Your task to perform on an android device: Go to Yahoo.com Image 0: 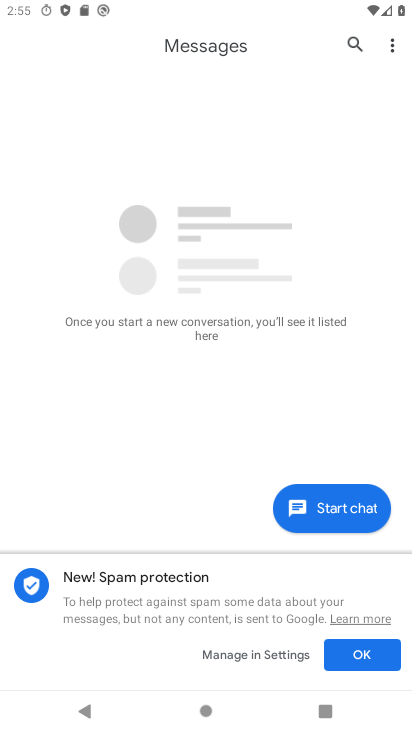
Step 0: click (373, 666)
Your task to perform on an android device: Go to Yahoo.com Image 1: 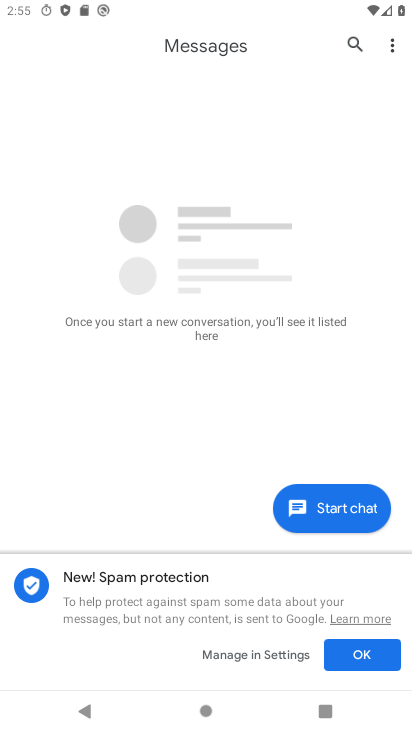
Step 1: click (373, 666)
Your task to perform on an android device: Go to Yahoo.com Image 2: 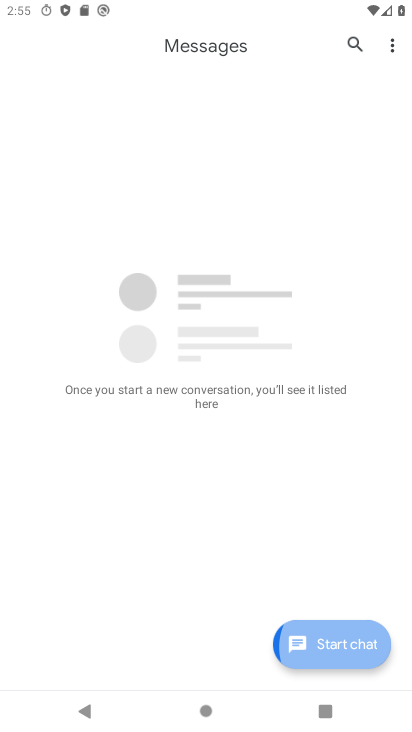
Step 2: click (370, 668)
Your task to perform on an android device: Go to Yahoo.com Image 3: 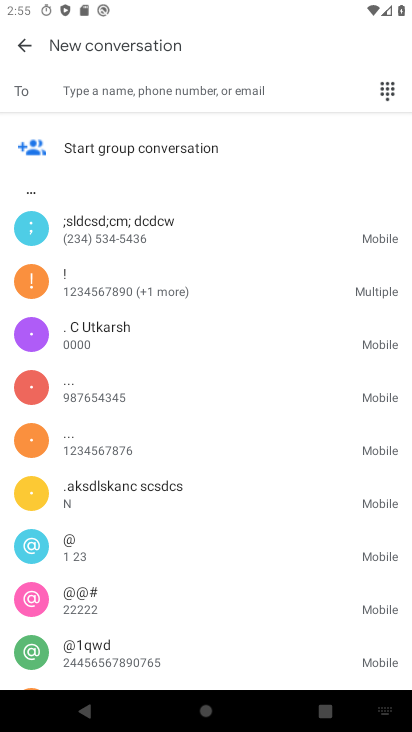
Step 3: press home button
Your task to perform on an android device: Go to Yahoo.com Image 4: 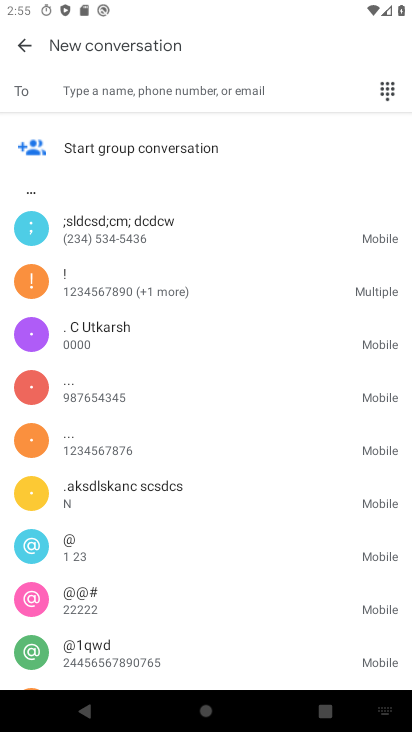
Step 4: press home button
Your task to perform on an android device: Go to Yahoo.com Image 5: 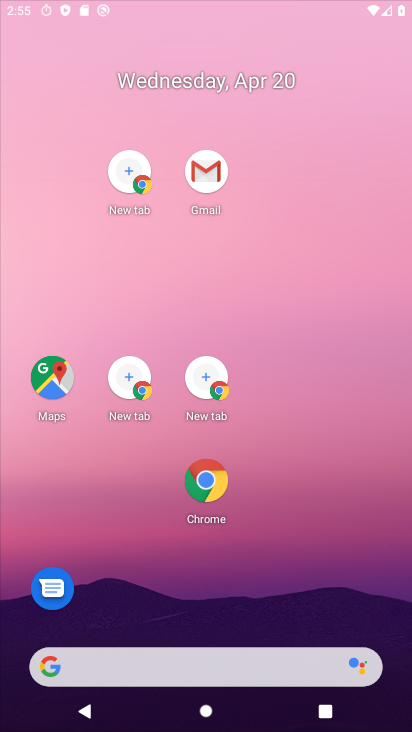
Step 5: press home button
Your task to perform on an android device: Go to Yahoo.com Image 6: 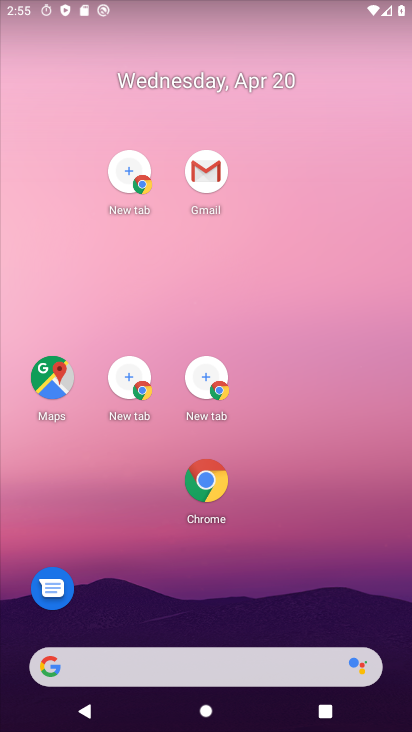
Step 6: press home button
Your task to perform on an android device: Go to Yahoo.com Image 7: 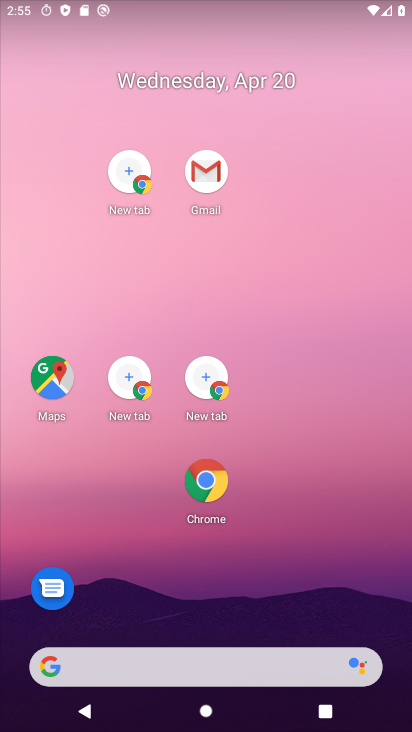
Step 7: drag from (280, 688) to (129, 86)
Your task to perform on an android device: Go to Yahoo.com Image 8: 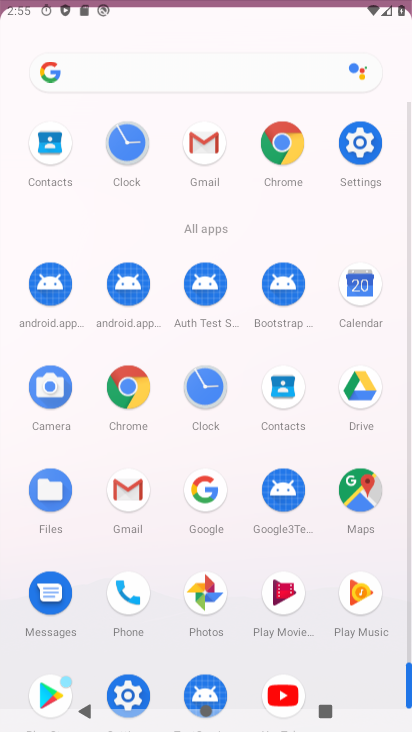
Step 8: drag from (220, 475) to (173, 62)
Your task to perform on an android device: Go to Yahoo.com Image 9: 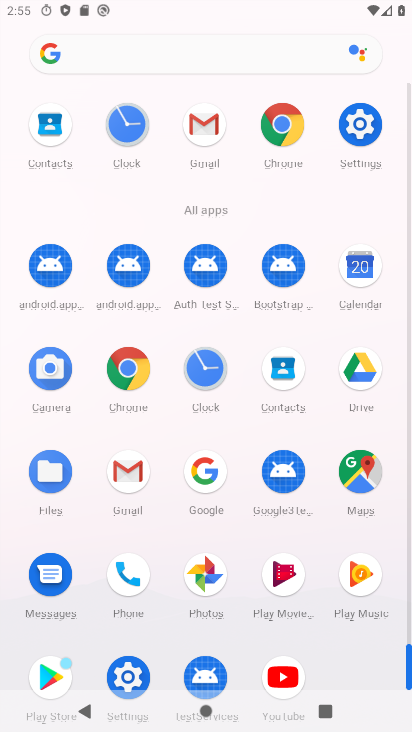
Step 9: click (276, 136)
Your task to perform on an android device: Go to Yahoo.com Image 10: 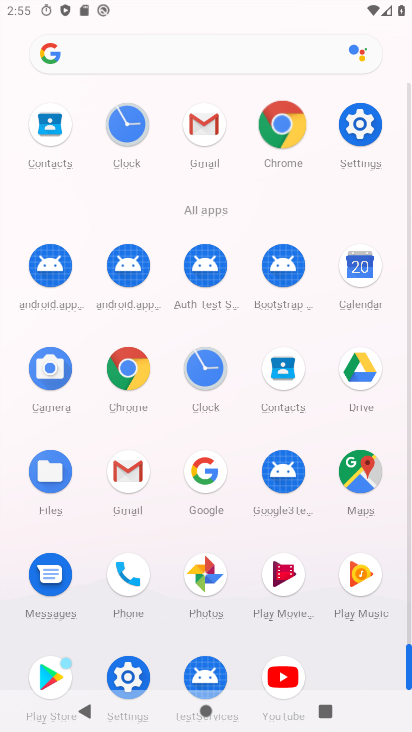
Step 10: click (276, 136)
Your task to perform on an android device: Go to Yahoo.com Image 11: 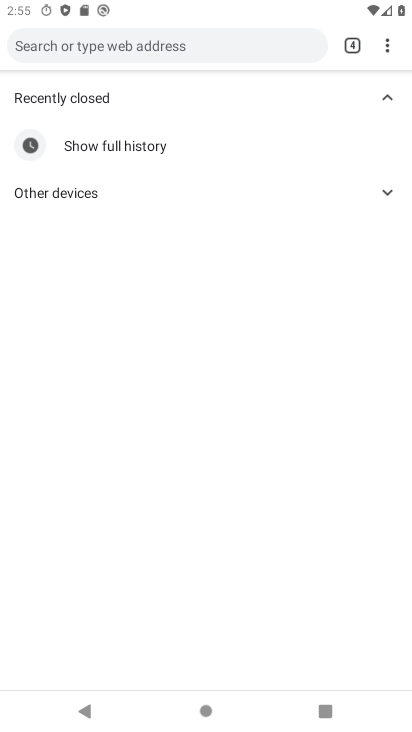
Step 11: click (311, 168)
Your task to perform on an android device: Go to Yahoo.com Image 12: 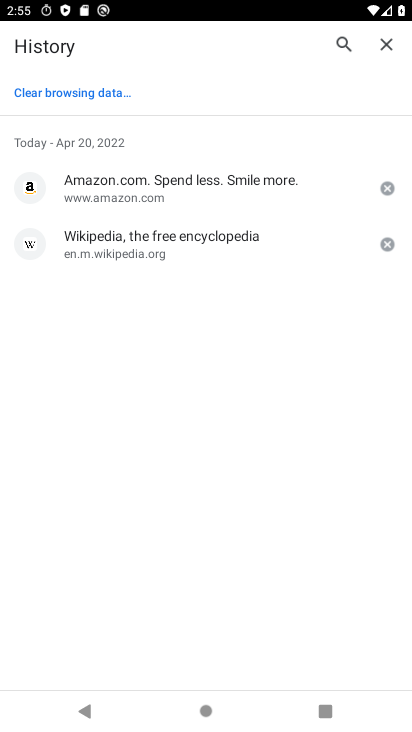
Step 12: click (382, 46)
Your task to perform on an android device: Go to Yahoo.com Image 13: 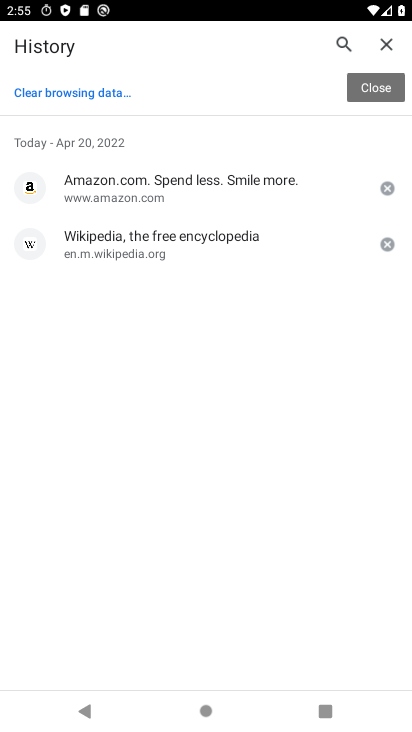
Step 13: click (386, 40)
Your task to perform on an android device: Go to Yahoo.com Image 14: 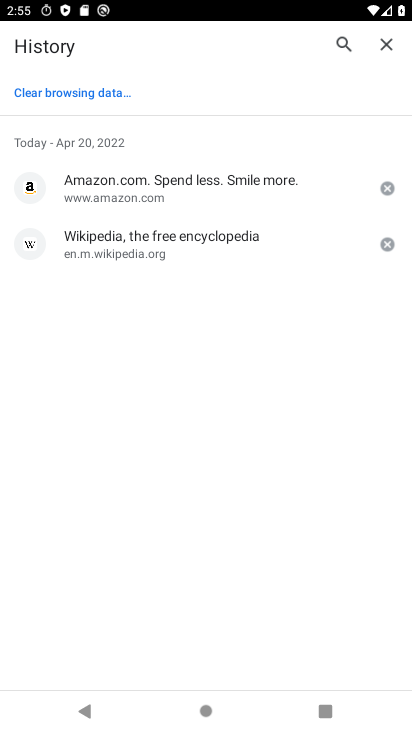
Step 14: click (375, 97)
Your task to perform on an android device: Go to Yahoo.com Image 15: 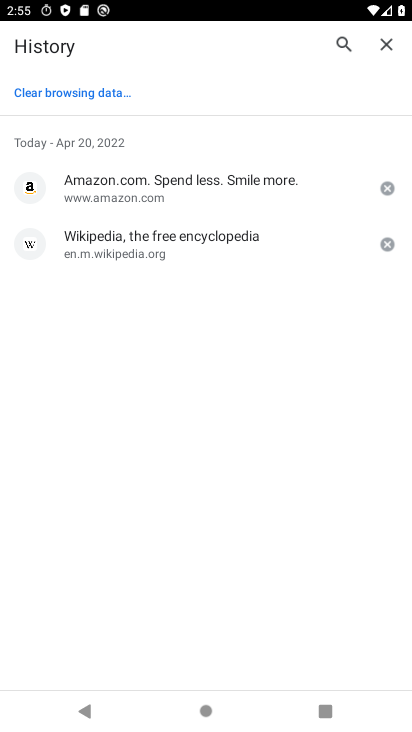
Step 15: press back button
Your task to perform on an android device: Go to Yahoo.com Image 16: 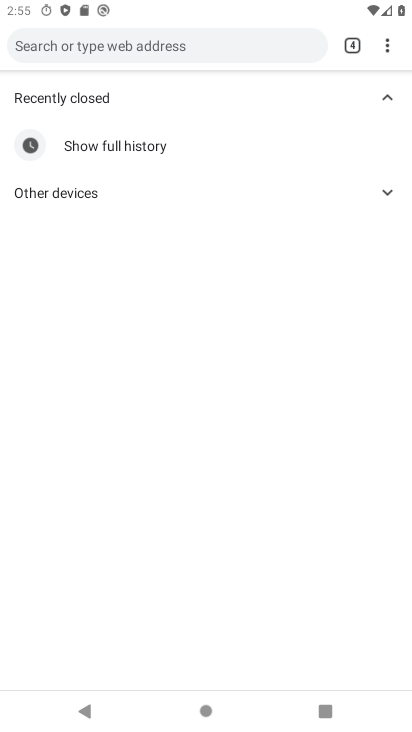
Step 16: drag from (383, 37) to (225, 97)
Your task to perform on an android device: Go to Yahoo.com Image 17: 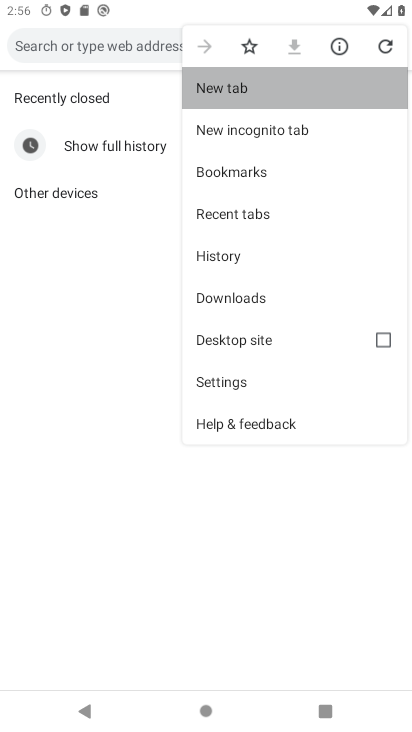
Step 17: click (225, 97)
Your task to perform on an android device: Go to Yahoo.com Image 18: 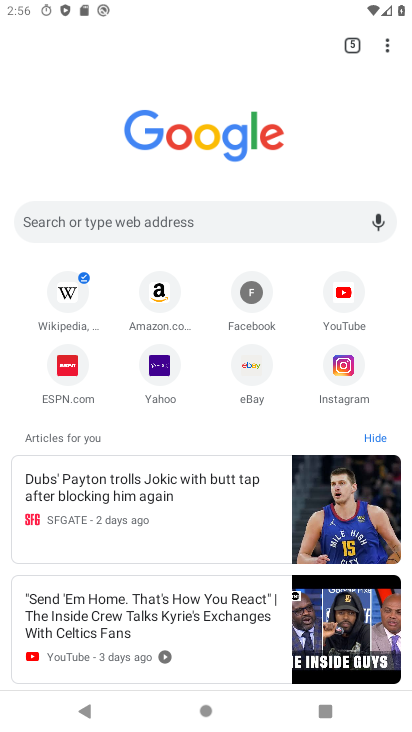
Step 18: click (156, 368)
Your task to perform on an android device: Go to Yahoo.com Image 19: 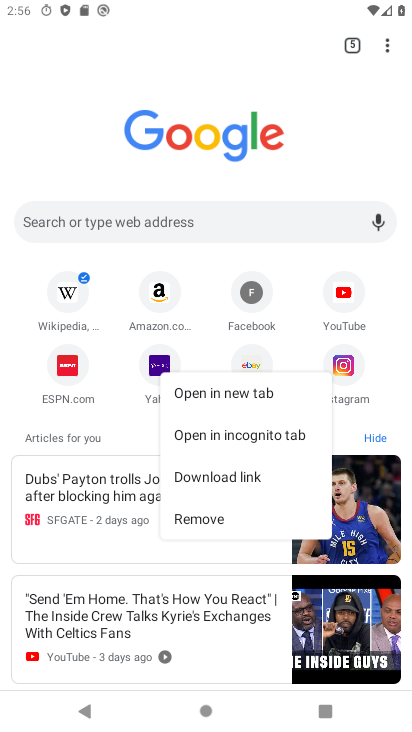
Step 19: click (156, 370)
Your task to perform on an android device: Go to Yahoo.com Image 20: 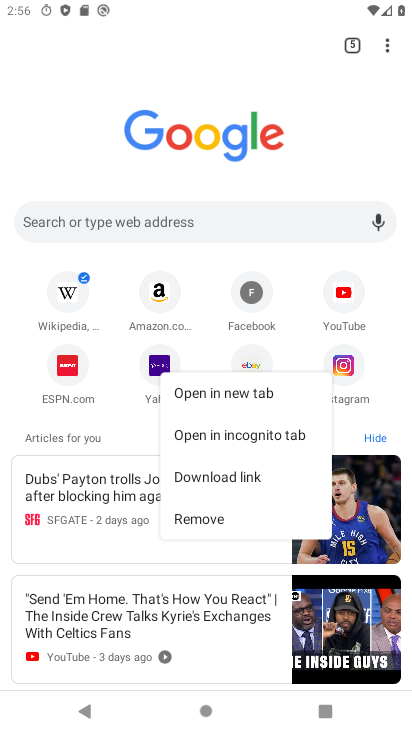
Step 20: click (175, 392)
Your task to perform on an android device: Go to Yahoo.com Image 21: 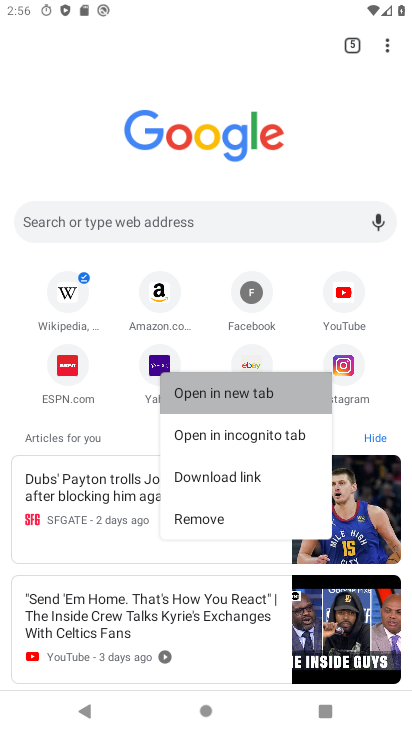
Step 21: click (185, 404)
Your task to perform on an android device: Go to Yahoo.com Image 22: 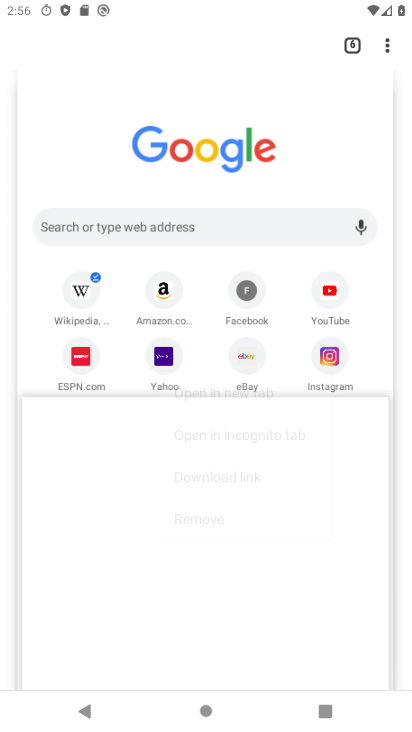
Step 22: click (185, 404)
Your task to perform on an android device: Go to Yahoo.com Image 23: 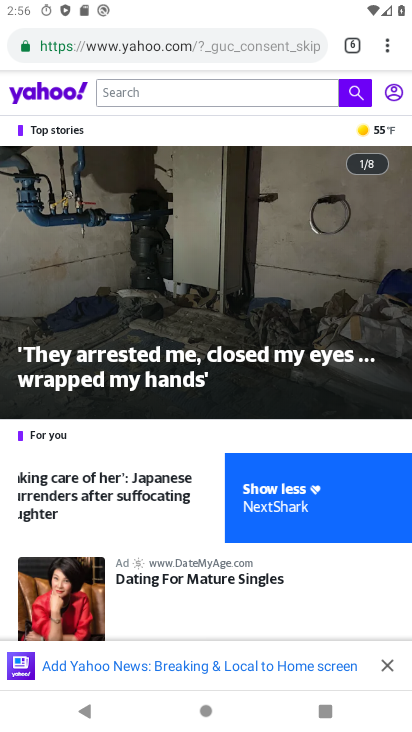
Step 23: task complete